Your task to perform on an android device: View the shopping cart on ebay.com. Add "jbl charge 4" to the cart on ebay.com Image 0: 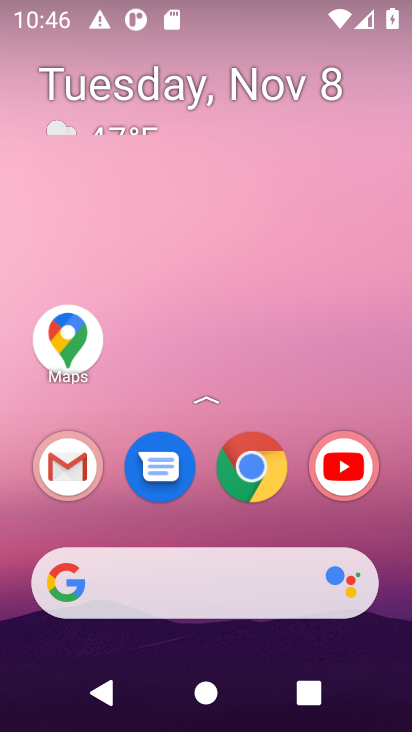
Step 0: click (241, 577)
Your task to perform on an android device: View the shopping cart on ebay.com. Add "jbl charge 4" to the cart on ebay.com Image 1: 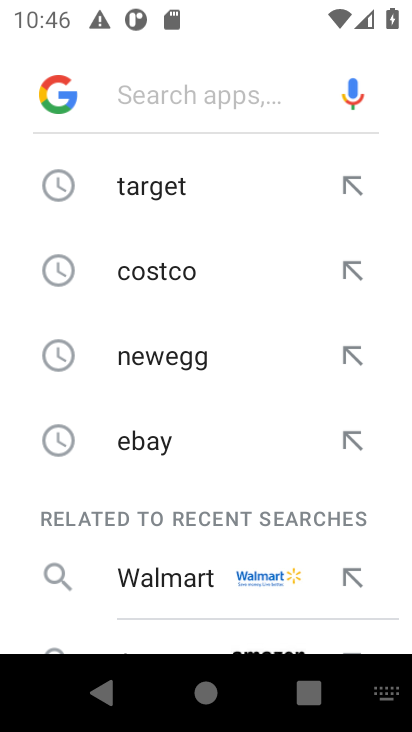
Step 1: click (167, 422)
Your task to perform on an android device: View the shopping cart on ebay.com. Add "jbl charge 4" to the cart on ebay.com Image 2: 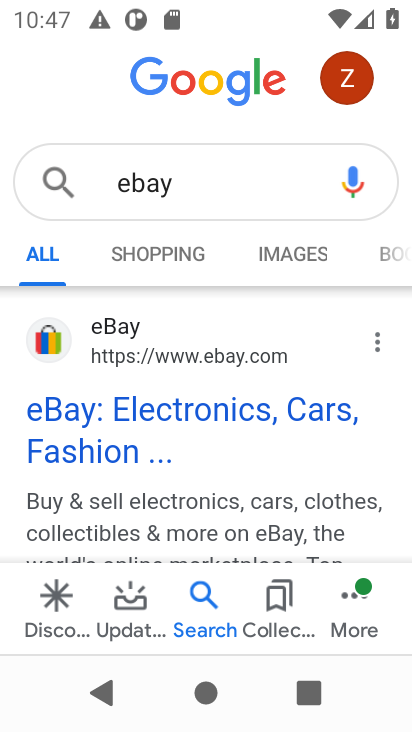
Step 2: click (136, 438)
Your task to perform on an android device: View the shopping cart on ebay.com. Add "jbl charge 4" to the cart on ebay.com Image 3: 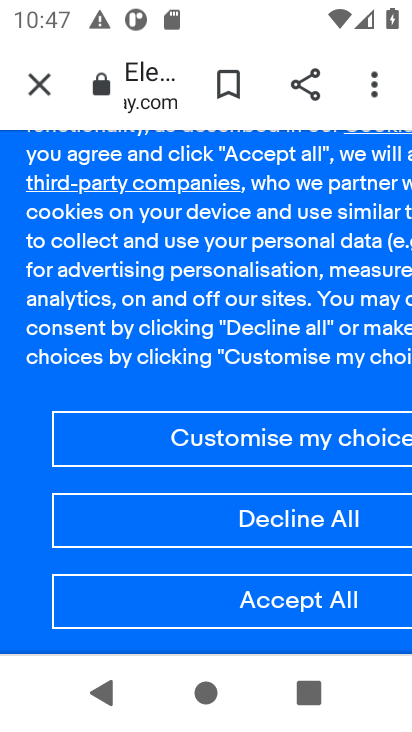
Step 3: task complete